Your task to perform on an android device: Empty the shopping cart on ebay. Search for logitech g pro on ebay, select the first entry, add it to the cart, then select checkout. Image 0: 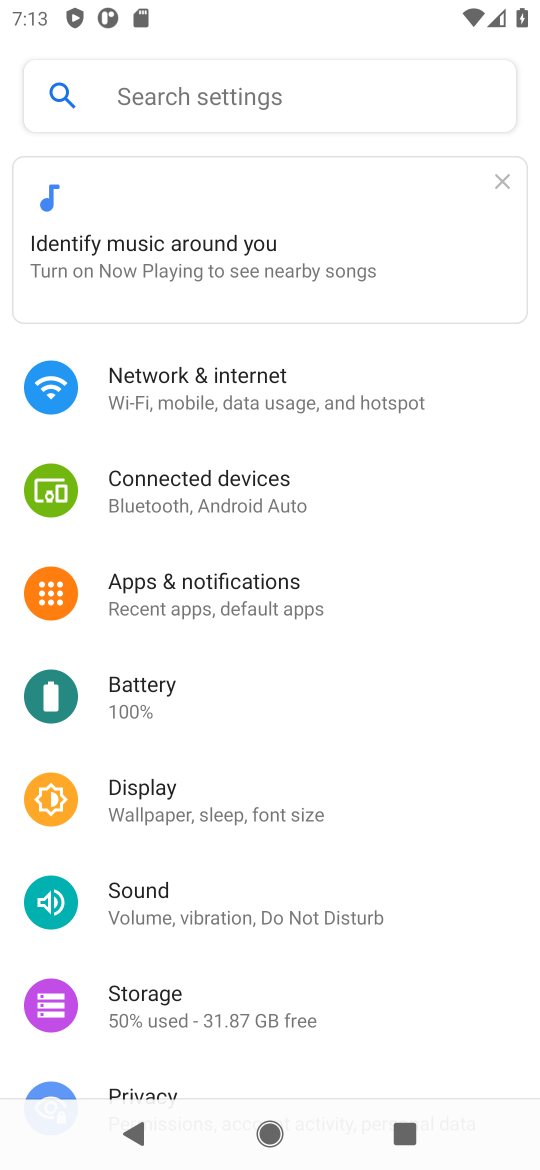
Step 0: press home button
Your task to perform on an android device: Empty the shopping cart on ebay. Search for logitech g pro on ebay, select the first entry, add it to the cart, then select checkout. Image 1: 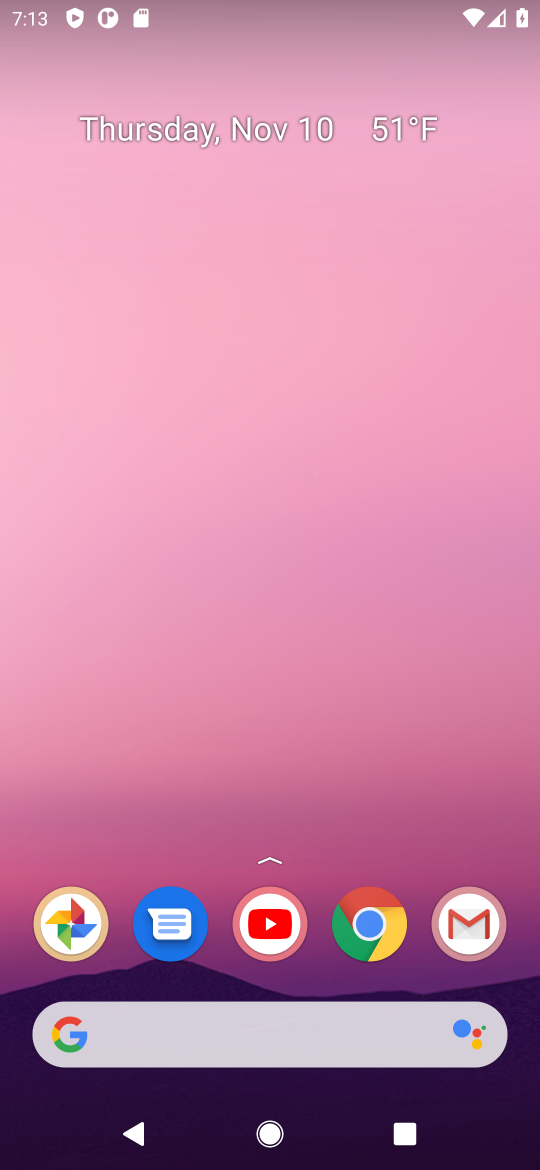
Step 1: click (375, 939)
Your task to perform on an android device: Empty the shopping cart on ebay. Search for logitech g pro on ebay, select the first entry, add it to the cart, then select checkout. Image 2: 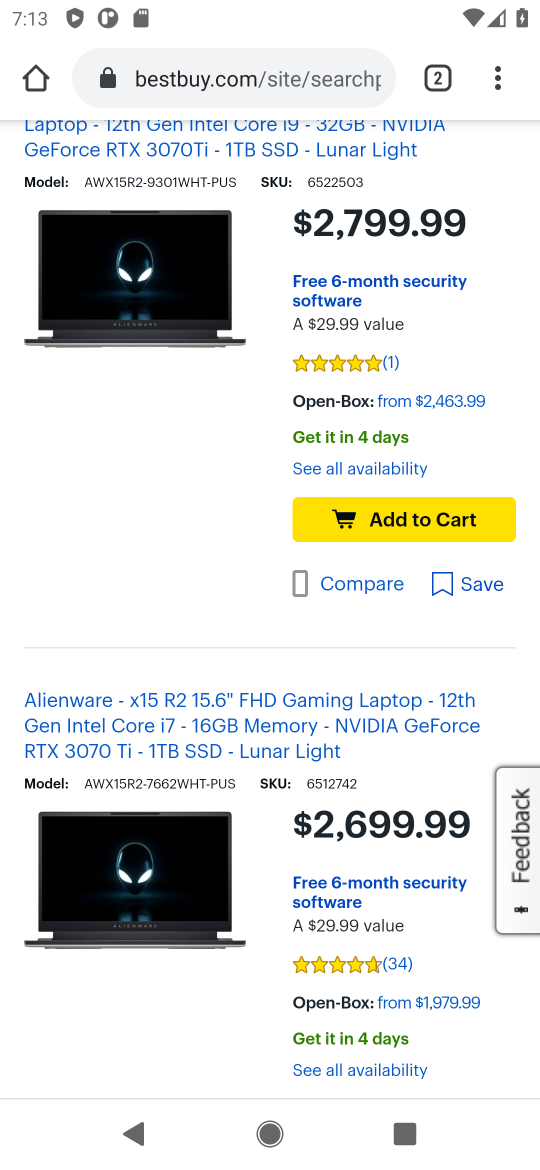
Step 2: click (209, 85)
Your task to perform on an android device: Empty the shopping cart on ebay. Search for logitech g pro on ebay, select the first entry, add it to the cart, then select checkout. Image 3: 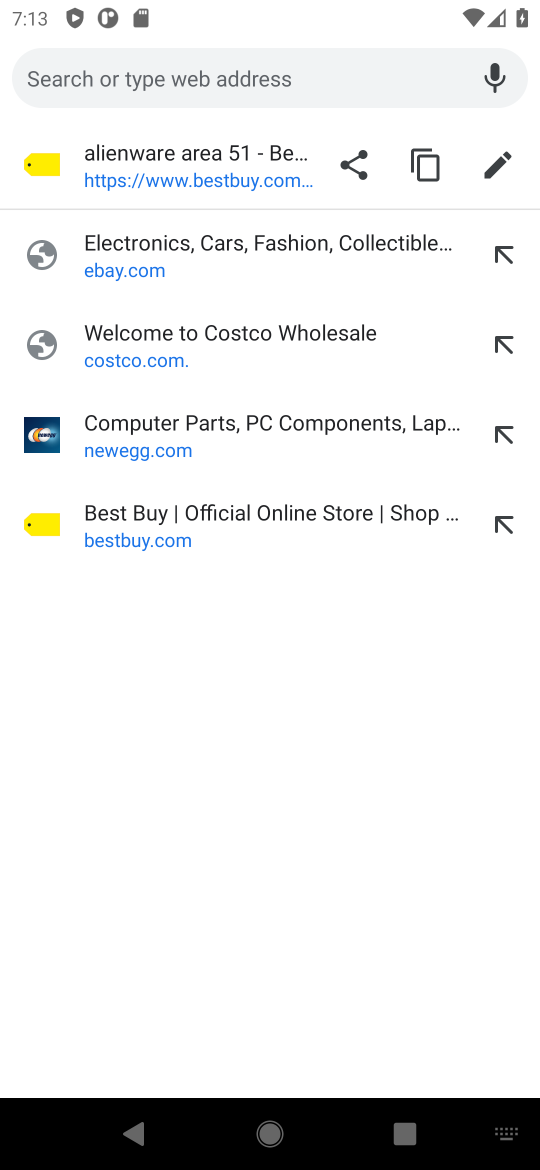
Step 3: click (106, 252)
Your task to perform on an android device: Empty the shopping cart on ebay. Search for logitech g pro on ebay, select the first entry, add it to the cart, then select checkout. Image 4: 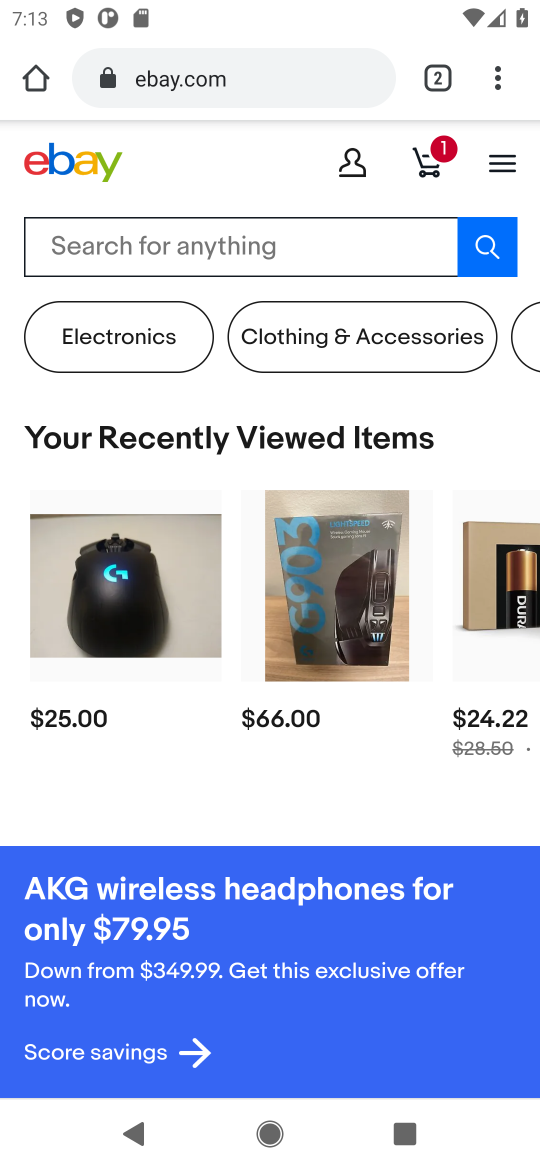
Step 4: click (428, 161)
Your task to perform on an android device: Empty the shopping cart on ebay. Search for logitech g pro on ebay, select the first entry, add it to the cart, then select checkout. Image 5: 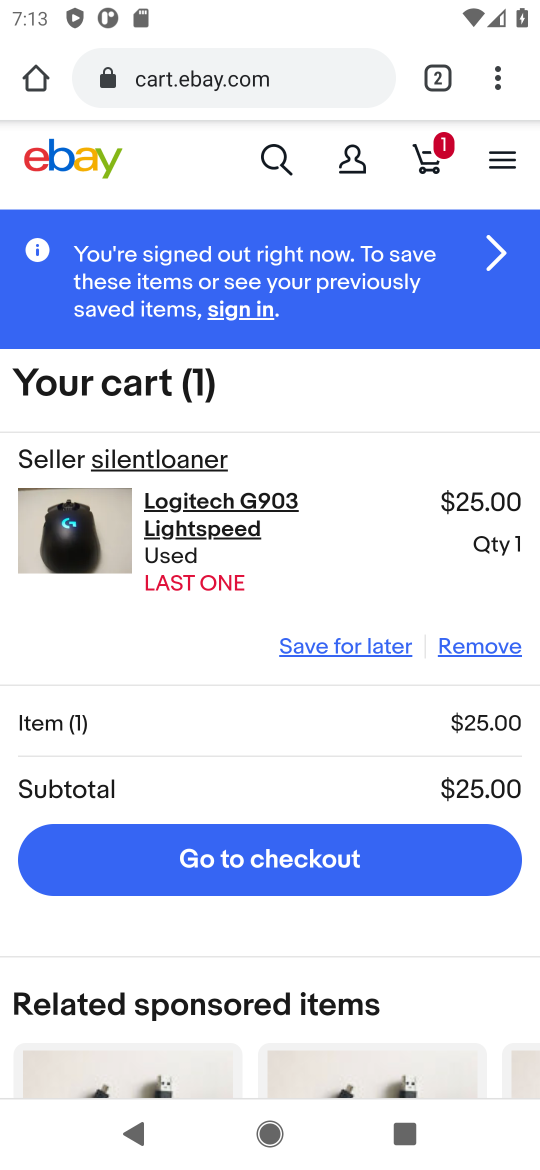
Step 5: click (467, 642)
Your task to perform on an android device: Empty the shopping cart on ebay. Search for logitech g pro on ebay, select the first entry, add it to the cart, then select checkout. Image 6: 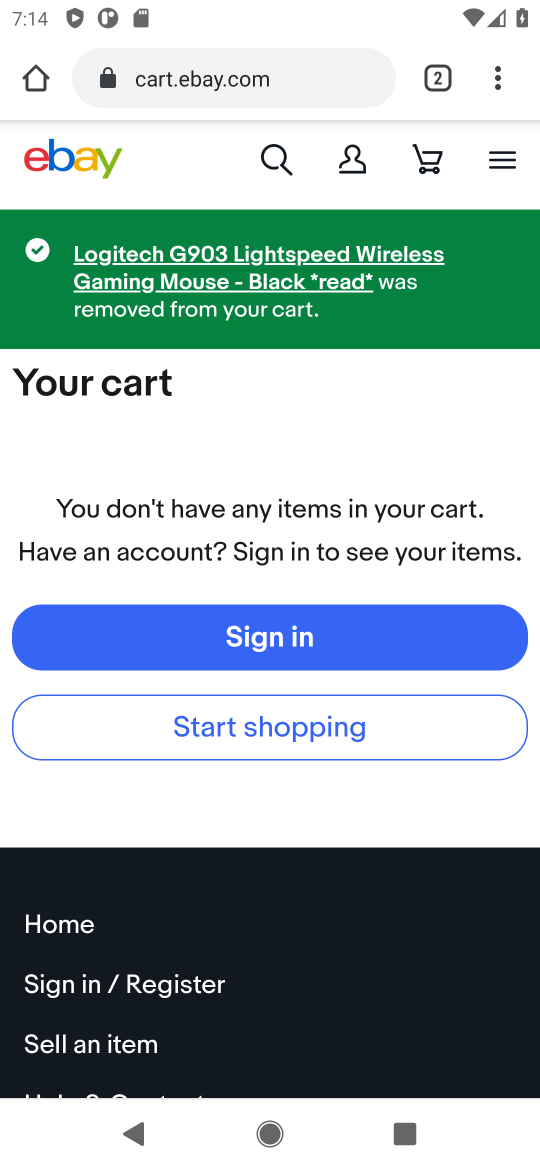
Step 6: click (276, 160)
Your task to perform on an android device: Empty the shopping cart on ebay. Search for logitech g pro on ebay, select the first entry, add it to the cart, then select checkout. Image 7: 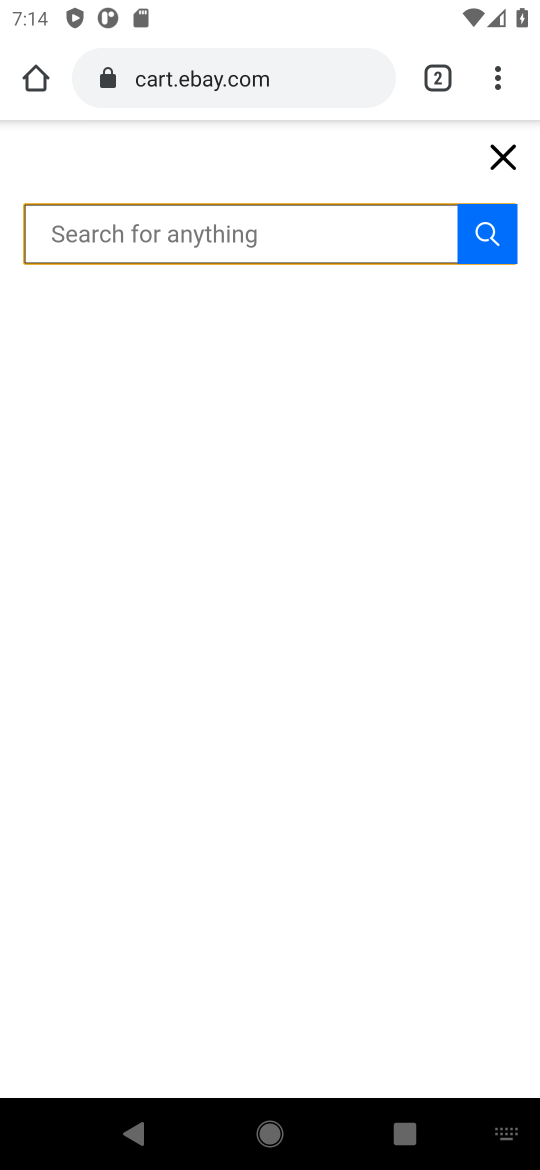
Step 7: type " logitech g pro "
Your task to perform on an android device: Empty the shopping cart on ebay. Search for logitech g pro on ebay, select the first entry, add it to the cart, then select checkout. Image 8: 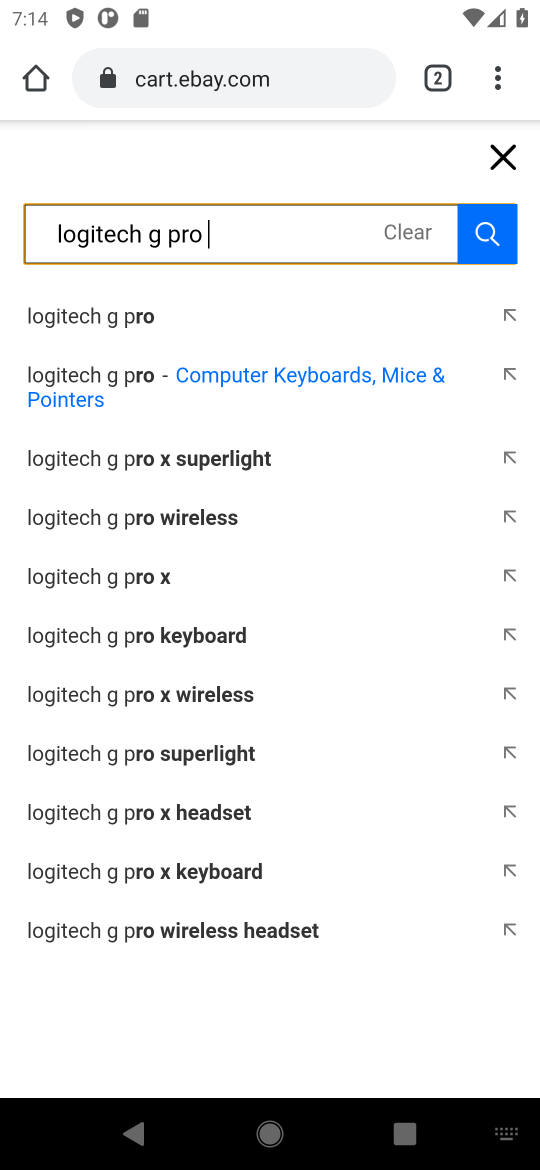
Step 8: click (130, 320)
Your task to perform on an android device: Empty the shopping cart on ebay. Search for logitech g pro on ebay, select the first entry, add it to the cart, then select checkout. Image 9: 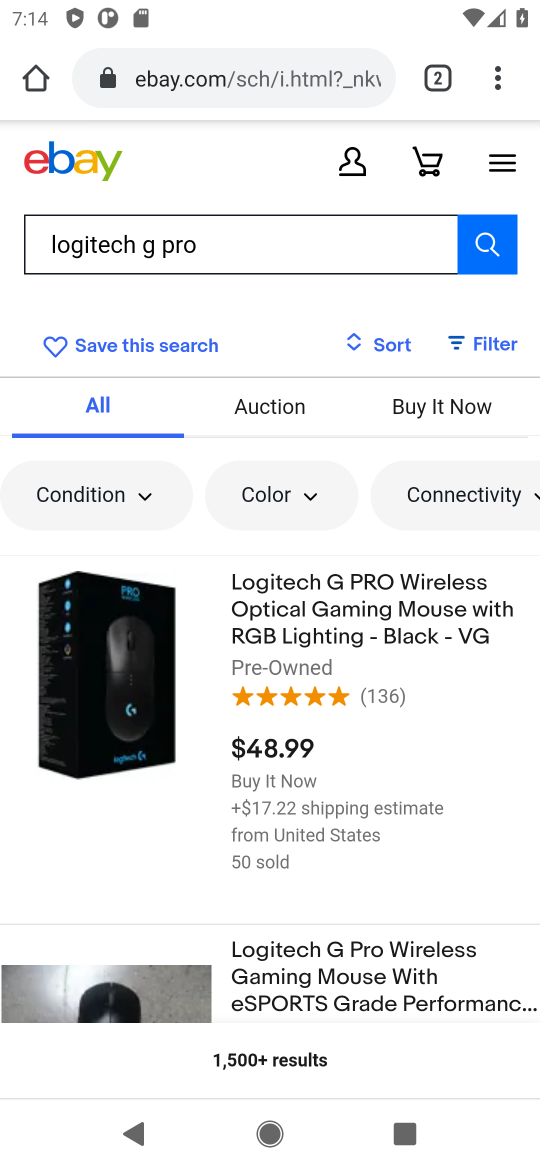
Step 9: click (83, 758)
Your task to perform on an android device: Empty the shopping cart on ebay. Search for logitech g pro on ebay, select the first entry, add it to the cart, then select checkout. Image 10: 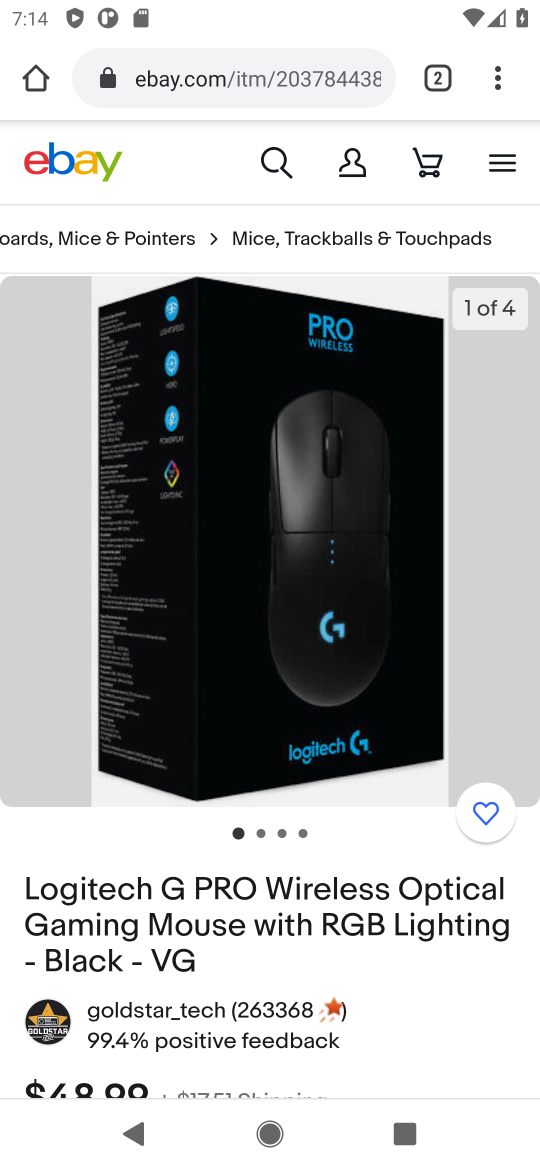
Step 10: drag from (319, 869) to (305, 328)
Your task to perform on an android device: Empty the shopping cart on ebay. Search for logitech g pro on ebay, select the first entry, add it to the cart, then select checkout. Image 11: 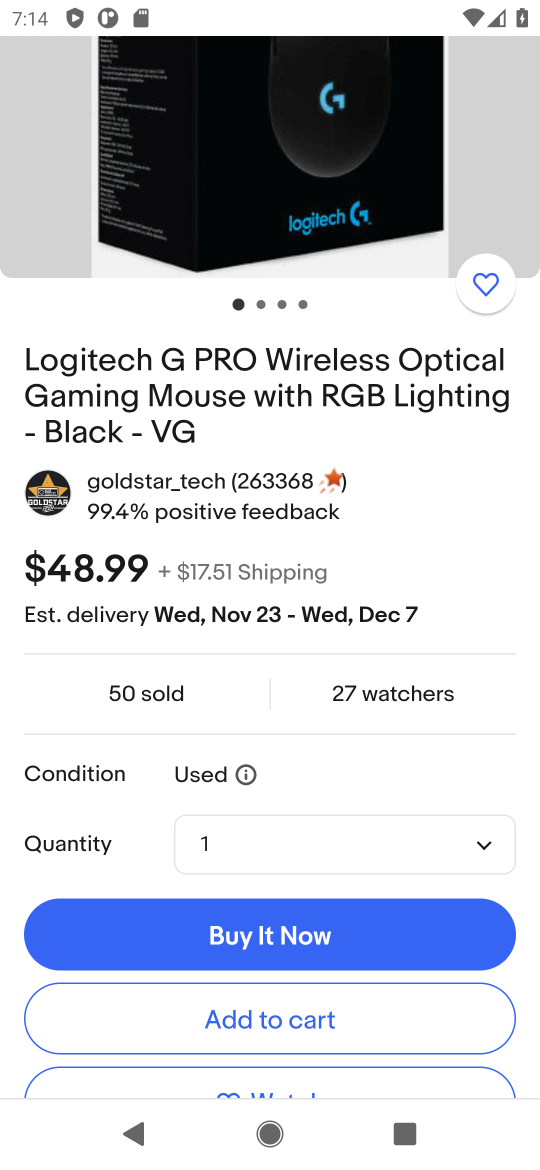
Step 11: click (247, 1017)
Your task to perform on an android device: Empty the shopping cart on ebay. Search for logitech g pro on ebay, select the first entry, add it to the cart, then select checkout. Image 12: 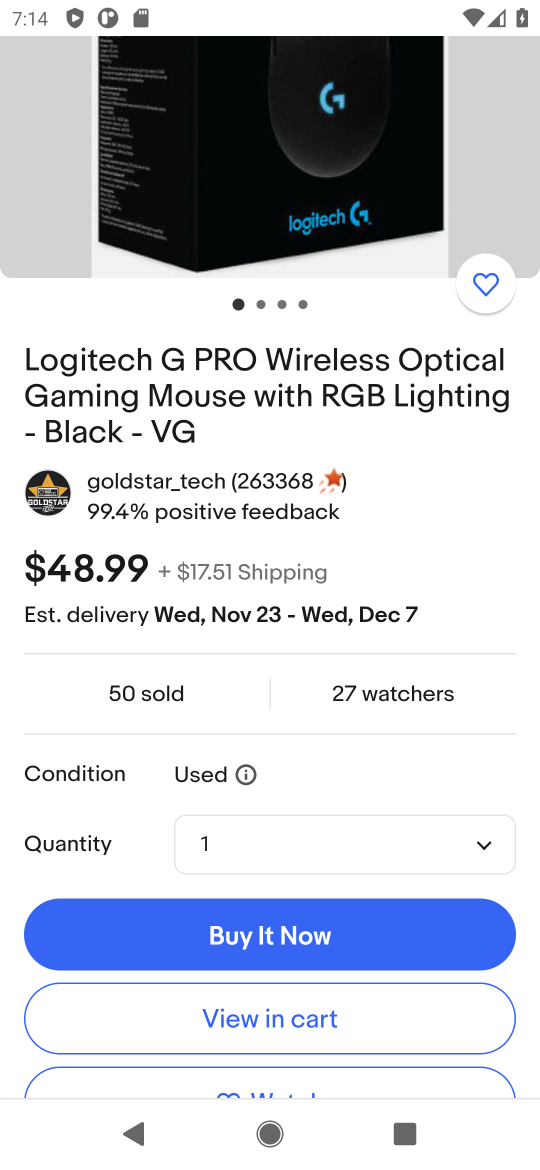
Step 12: click (247, 1017)
Your task to perform on an android device: Empty the shopping cart on ebay. Search for logitech g pro on ebay, select the first entry, add it to the cart, then select checkout. Image 13: 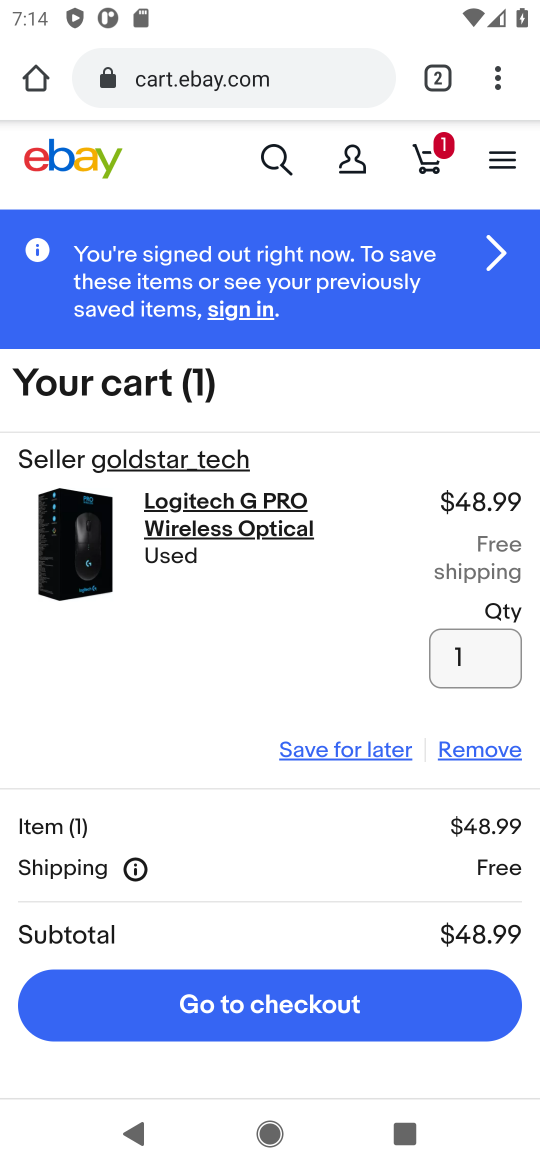
Step 13: click (247, 1018)
Your task to perform on an android device: Empty the shopping cart on ebay. Search for logitech g pro on ebay, select the first entry, add it to the cart, then select checkout. Image 14: 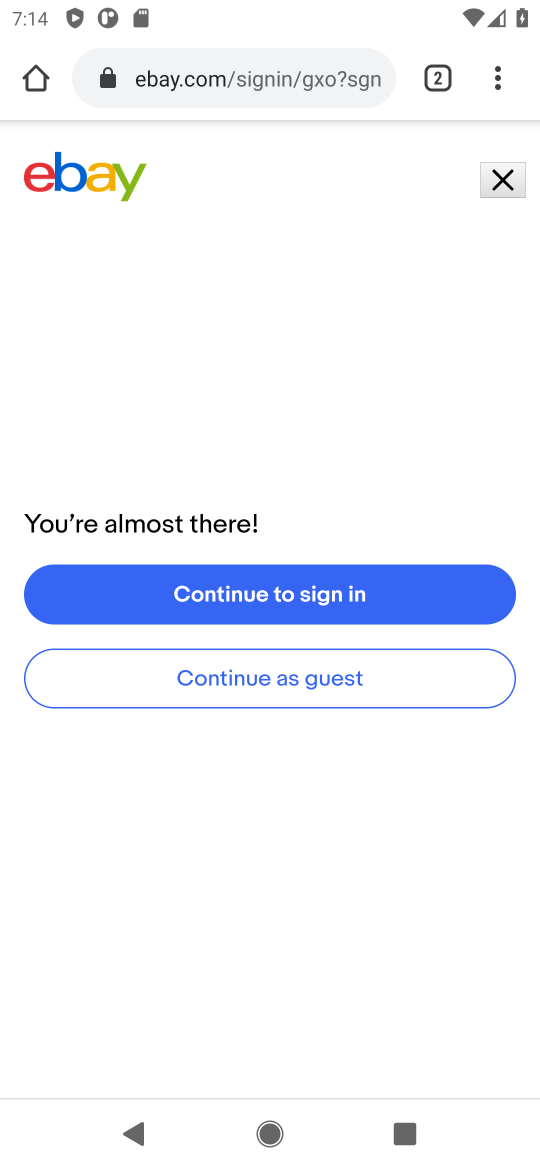
Step 14: task complete